Your task to perform on an android device: Show the shopping cart on walmart. Add usb-c to usb-a to the cart on walmart, then select checkout. Image 0: 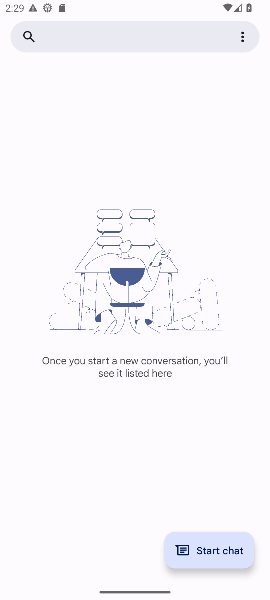
Step 0: drag from (118, 597) to (154, 135)
Your task to perform on an android device: Show the shopping cart on walmart. Add usb-c to usb-a to the cart on walmart, then select checkout. Image 1: 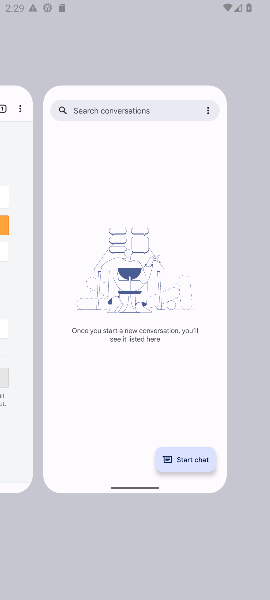
Step 1: drag from (8, 201) to (266, 236)
Your task to perform on an android device: Show the shopping cart on walmart. Add usb-c to usb-a to the cart on walmart, then select checkout. Image 2: 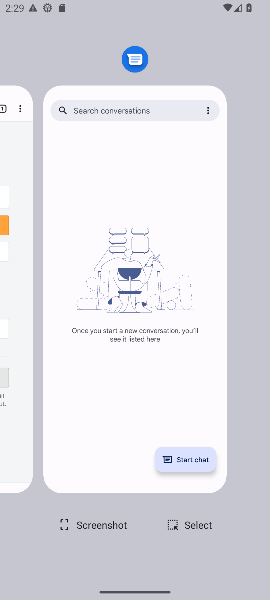
Step 2: drag from (2, 260) to (268, 301)
Your task to perform on an android device: Show the shopping cart on walmart. Add usb-c to usb-a to the cart on walmart, then select checkout. Image 3: 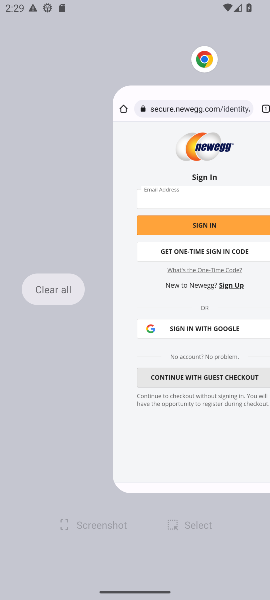
Step 3: drag from (126, 319) to (253, 317)
Your task to perform on an android device: Show the shopping cart on walmart. Add usb-c to usb-a to the cart on walmart, then select checkout. Image 4: 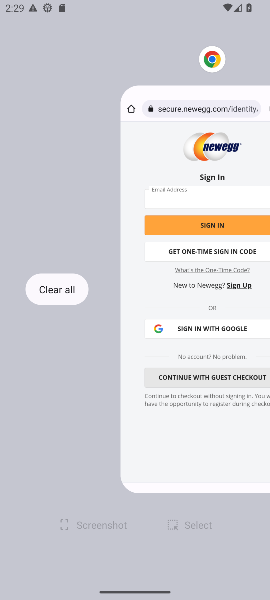
Step 4: click (37, 296)
Your task to perform on an android device: Show the shopping cart on walmart. Add usb-c to usb-a to the cart on walmart, then select checkout. Image 5: 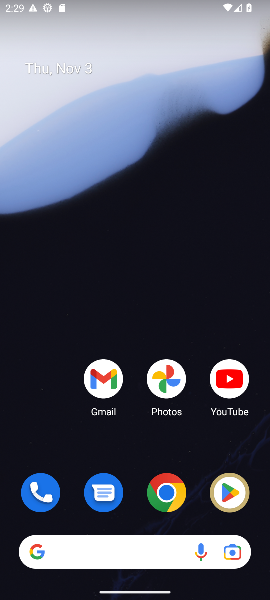
Step 5: click (161, 492)
Your task to perform on an android device: Show the shopping cart on walmart. Add usb-c to usb-a to the cart on walmart, then select checkout. Image 6: 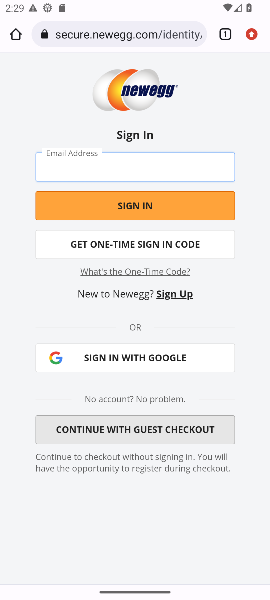
Step 6: click (129, 36)
Your task to perform on an android device: Show the shopping cart on walmart. Add usb-c to usb-a to the cart on walmart, then select checkout. Image 7: 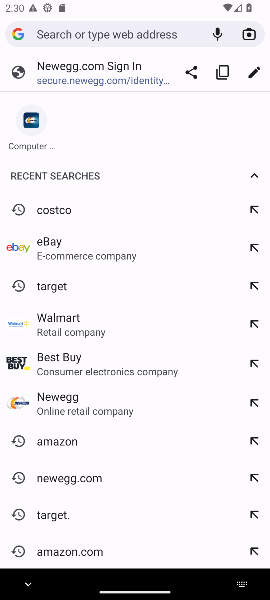
Step 7: type "walmart"
Your task to perform on an android device: Show the shopping cart on walmart. Add usb-c to usb-a to the cart on walmart, then select checkout. Image 8: 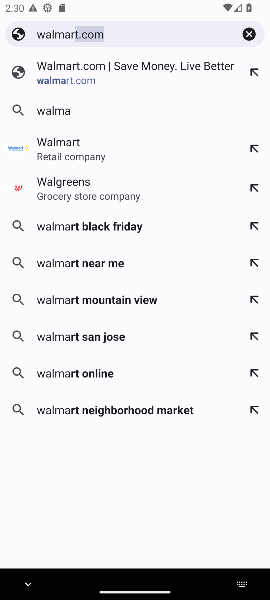
Step 8: type ""
Your task to perform on an android device: Show the shopping cart on walmart. Add usb-c to usb-a to the cart on walmart, then select checkout. Image 9: 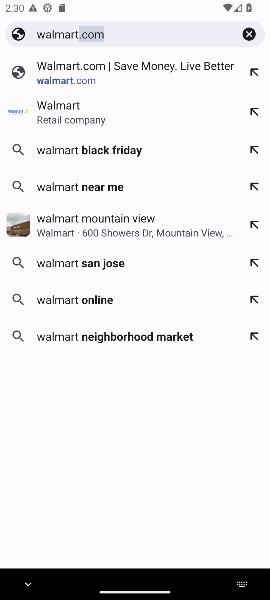
Step 9: click (123, 71)
Your task to perform on an android device: Show the shopping cart on walmart. Add usb-c to usb-a to the cart on walmart, then select checkout. Image 10: 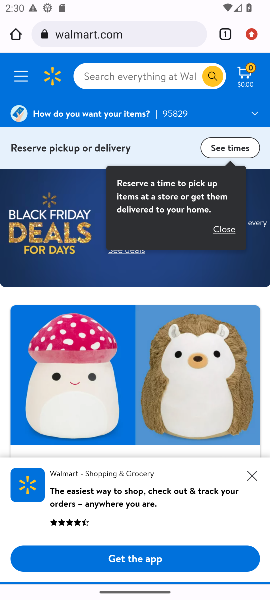
Step 10: click (248, 477)
Your task to perform on an android device: Show the shopping cart on walmart. Add usb-c to usb-a to the cart on walmart, then select checkout. Image 11: 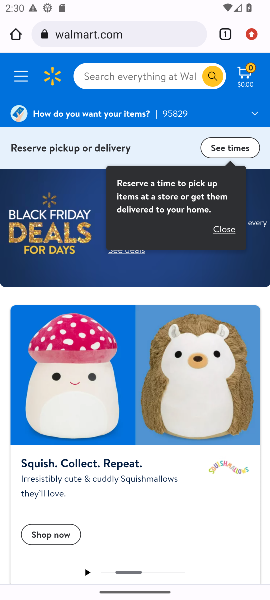
Step 11: click (107, 72)
Your task to perform on an android device: Show the shopping cart on walmart. Add usb-c to usb-a to the cart on walmart, then select checkout. Image 12: 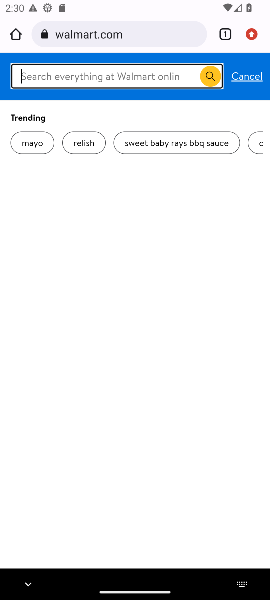
Step 12: type "usb-c to usb-a"
Your task to perform on an android device: Show the shopping cart on walmart. Add usb-c to usb-a to the cart on walmart, then select checkout. Image 13: 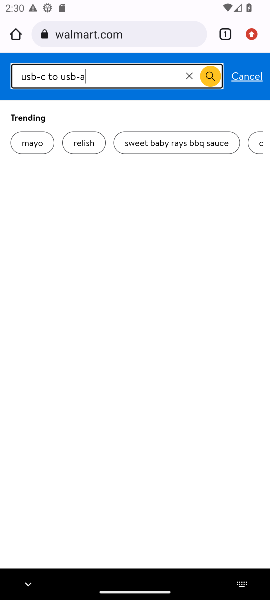
Step 13: type ""
Your task to perform on an android device: Show the shopping cart on walmart. Add usb-c to usb-a to the cart on walmart, then select checkout. Image 14: 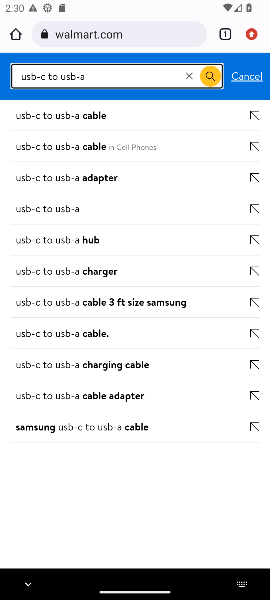
Step 14: click (68, 107)
Your task to perform on an android device: Show the shopping cart on walmart. Add usb-c to usb-a to the cart on walmart, then select checkout. Image 15: 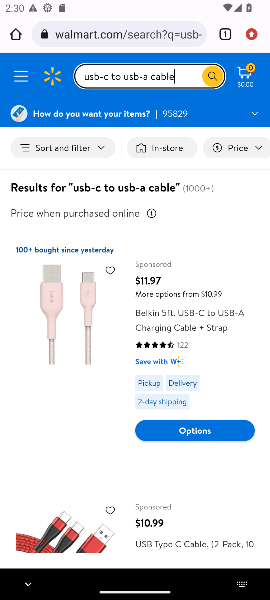
Step 15: click (227, 432)
Your task to perform on an android device: Show the shopping cart on walmart. Add usb-c to usb-a to the cart on walmart, then select checkout. Image 16: 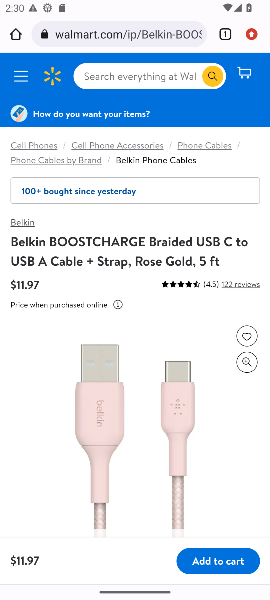
Step 16: click (220, 560)
Your task to perform on an android device: Show the shopping cart on walmart. Add usb-c to usb-a to the cart on walmart, then select checkout. Image 17: 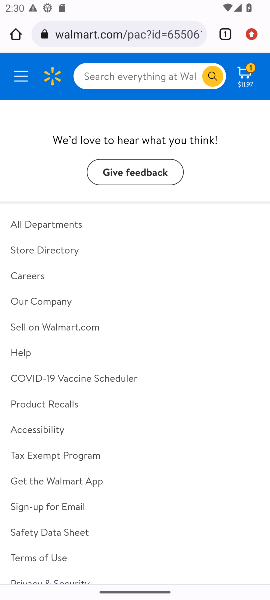
Step 17: click (240, 81)
Your task to perform on an android device: Show the shopping cart on walmart. Add usb-c to usb-a to the cart on walmart, then select checkout. Image 18: 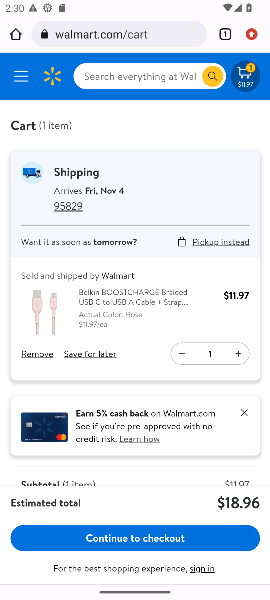
Step 18: click (248, 412)
Your task to perform on an android device: Show the shopping cart on walmart. Add usb-c to usb-a to the cart on walmart, then select checkout. Image 19: 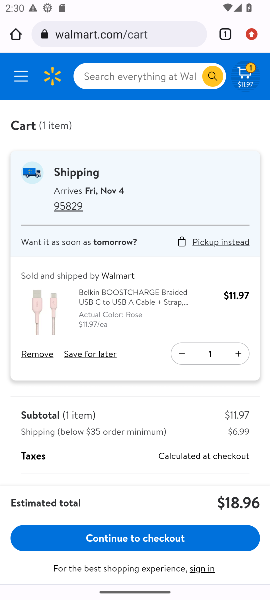
Step 19: click (179, 540)
Your task to perform on an android device: Show the shopping cart on walmart. Add usb-c to usb-a to the cart on walmart, then select checkout. Image 20: 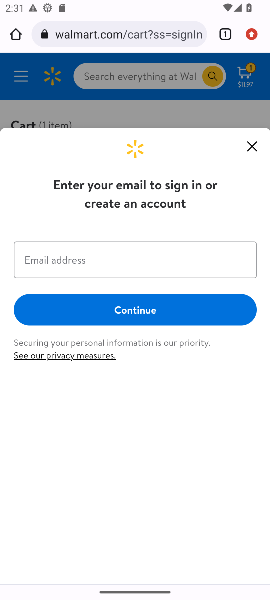
Step 20: click (253, 143)
Your task to perform on an android device: Show the shopping cart on walmart. Add usb-c to usb-a to the cart on walmart, then select checkout. Image 21: 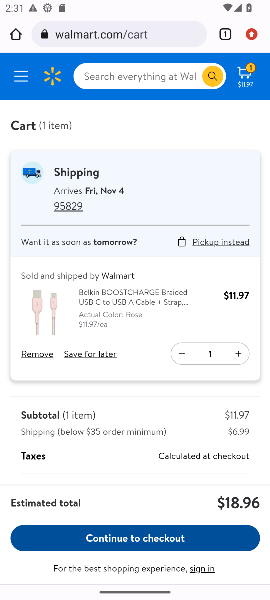
Step 21: task complete